Your task to perform on an android device: open chrome privacy settings Image 0: 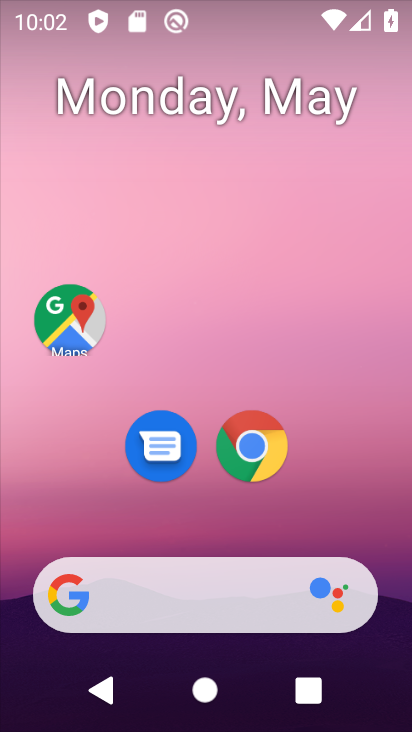
Step 0: click (266, 462)
Your task to perform on an android device: open chrome privacy settings Image 1: 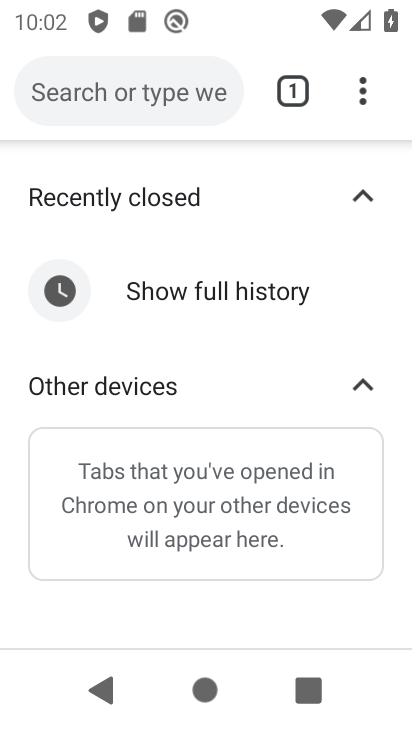
Step 1: click (363, 90)
Your task to perform on an android device: open chrome privacy settings Image 2: 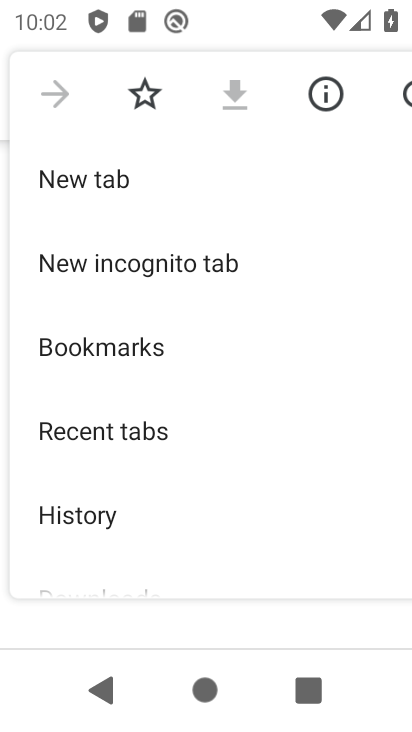
Step 2: drag from (235, 580) to (207, 197)
Your task to perform on an android device: open chrome privacy settings Image 3: 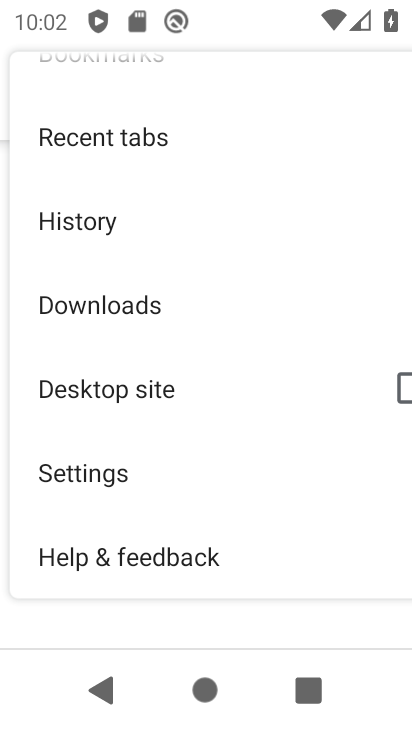
Step 3: click (102, 479)
Your task to perform on an android device: open chrome privacy settings Image 4: 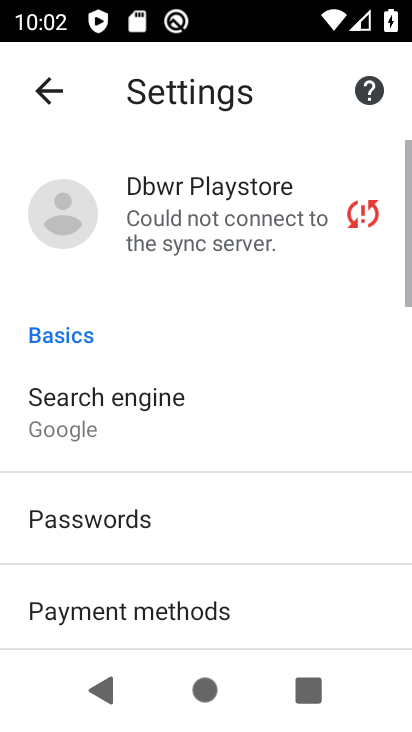
Step 4: drag from (253, 542) to (199, 156)
Your task to perform on an android device: open chrome privacy settings Image 5: 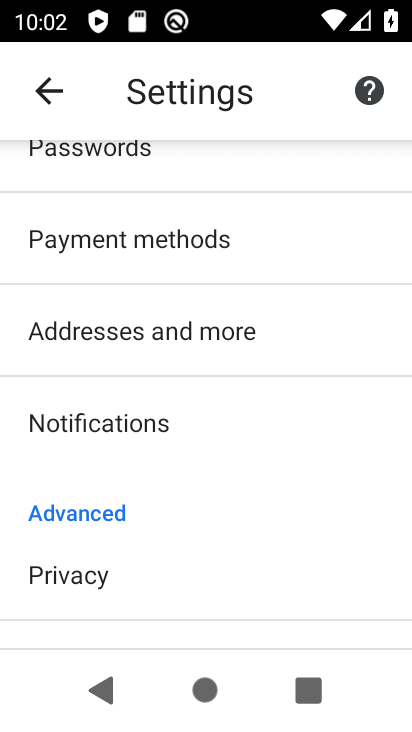
Step 5: click (111, 589)
Your task to perform on an android device: open chrome privacy settings Image 6: 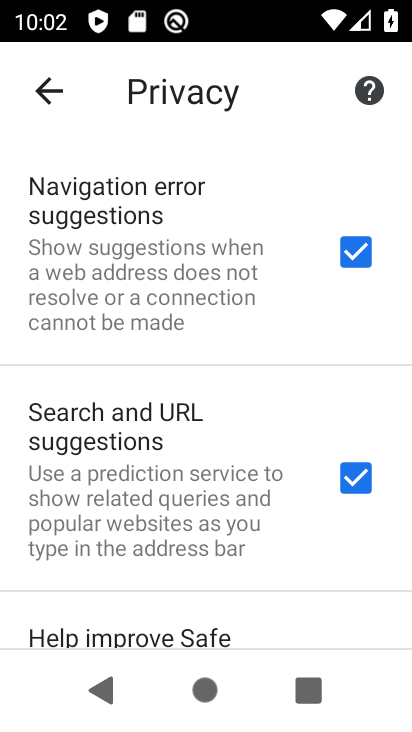
Step 6: task complete